Your task to perform on an android device: open chrome privacy settings Image 0: 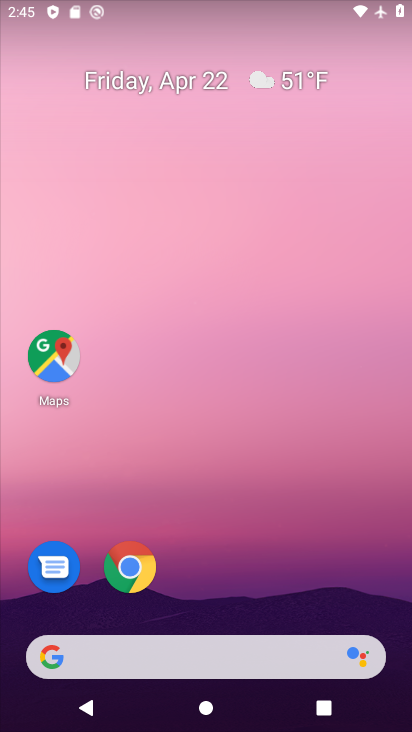
Step 0: drag from (273, 625) to (215, 209)
Your task to perform on an android device: open chrome privacy settings Image 1: 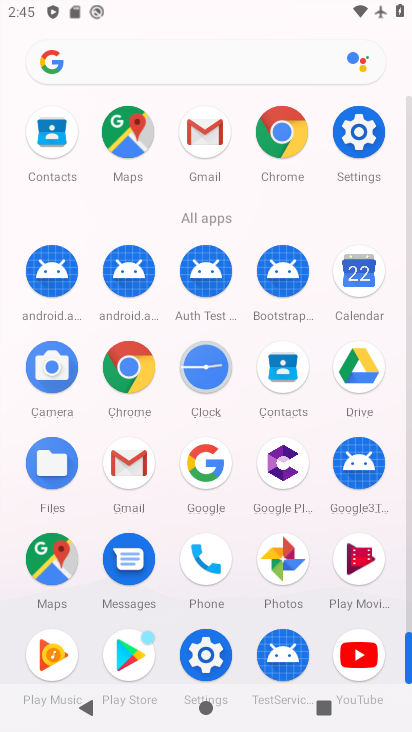
Step 1: click (278, 144)
Your task to perform on an android device: open chrome privacy settings Image 2: 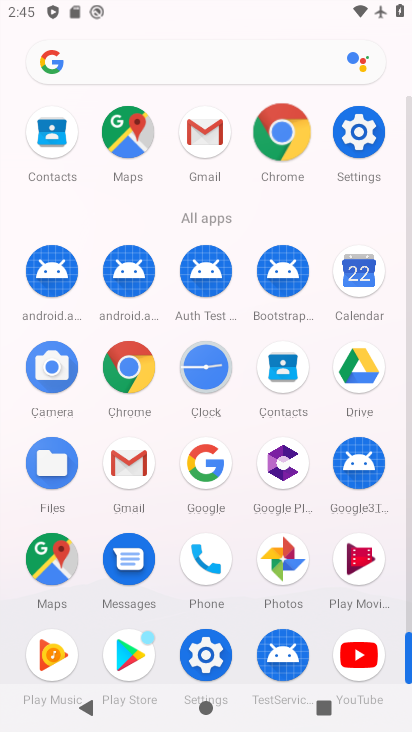
Step 2: click (278, 144)
Your task to perform on an android device: open chrome privacy settings Image 3: 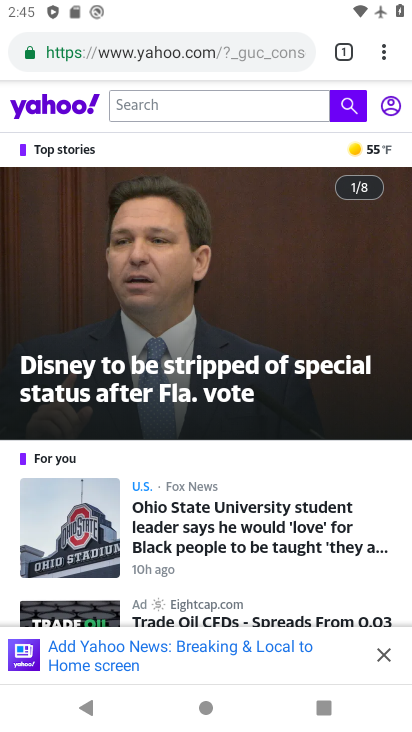
Step 3: drag from (384, 51) to (215, 582)
Your task to perform on an android device: open chrome privacy settings Image 4: 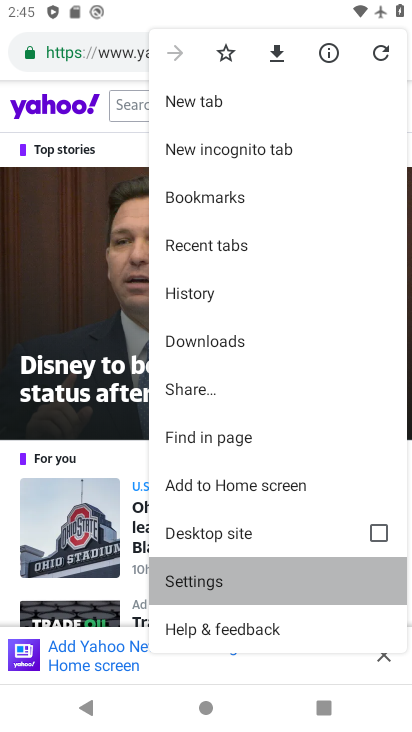
Step 4: click (215, 582)
Your task to perform on an android device: open chrome privacy settings Image 5: 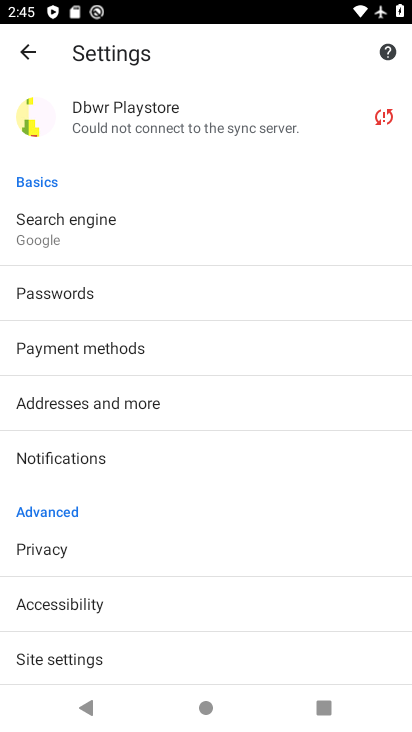
Step 5: drag from (68, 329) to (56, 190)
Your task to perform on an android device: open chrome privacy settings Image 6: 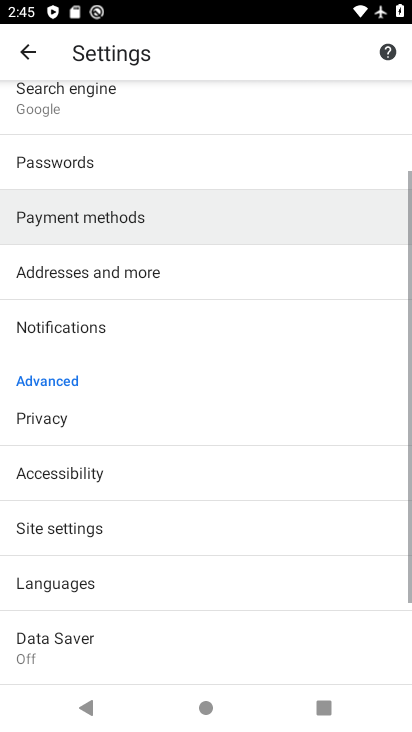
Step 6: drag from (132, 532) to (136, 215)
Your task to perform on an android device: open chrome privacy settings Image 7: 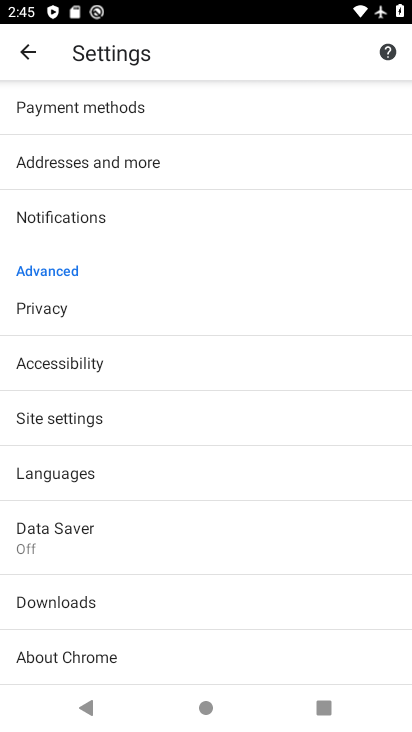
Step 7: click (43, 412)
Your task to perform on an android device: open chrome privacy settings Image 8: 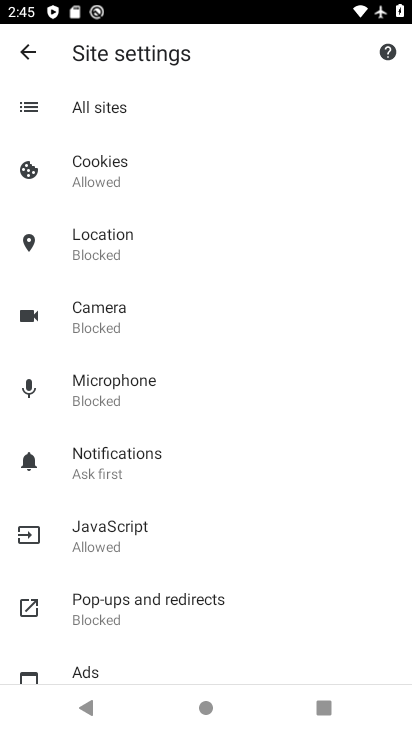
Step 8: click (33, 47)
Your task to perform on an android device: open chrome privacy settings Image 9: 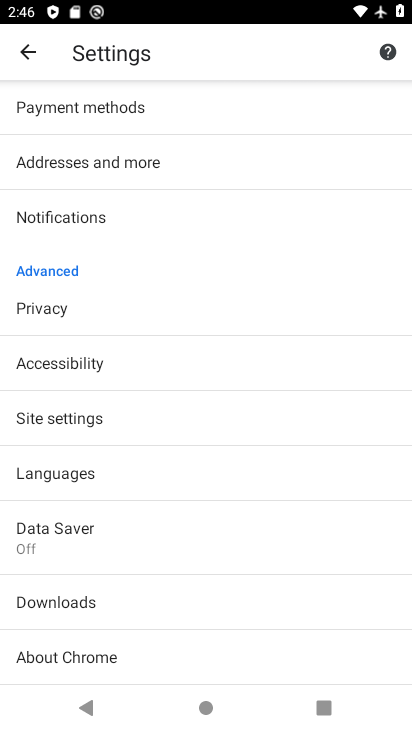
Step 9: click (99, 538)
Your task to perform on an android device: open chrome privacy settings Image 10: 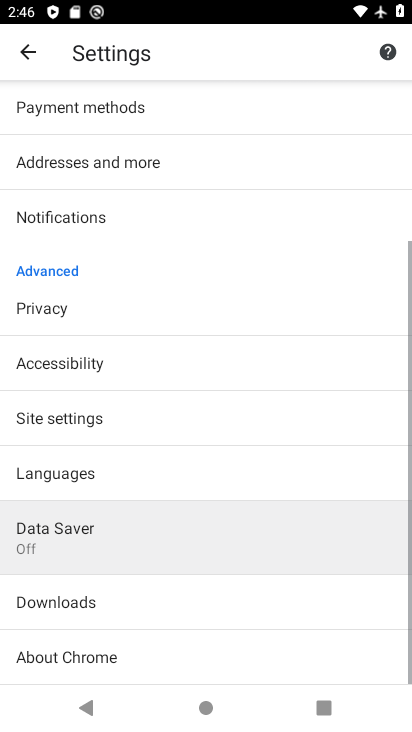
Step 10: click (30, 309)
Your task to perform on an android device: open chrome privacy settings Image 11: 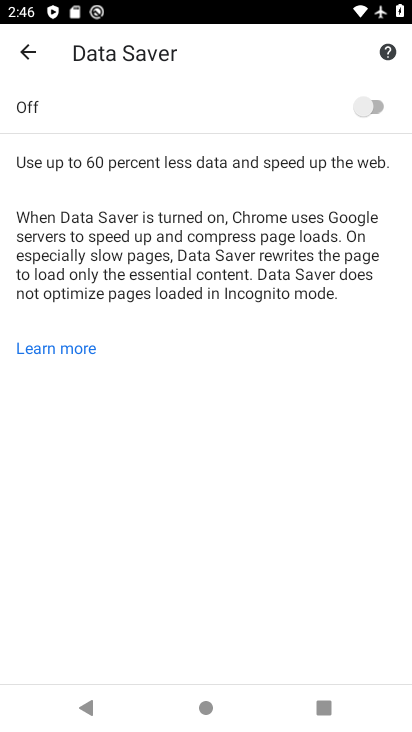
Step 11: click (15, 47)
Your task to perform on an android device: open chrome privacy settings Image 12: 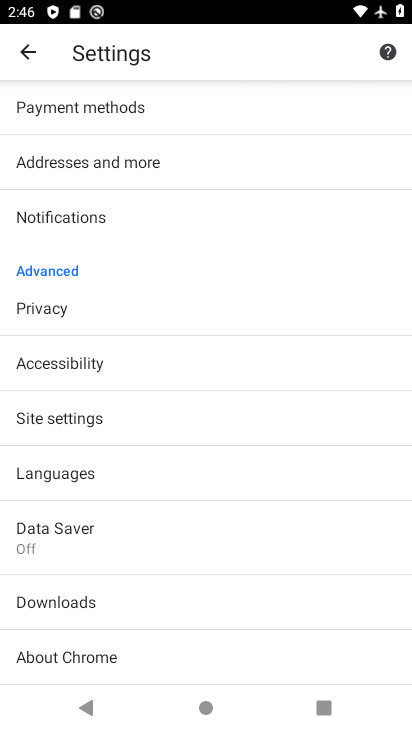
Step 12: click (44, 302)
Your task to perform on an android device: open chrome privacy settings Image 13: 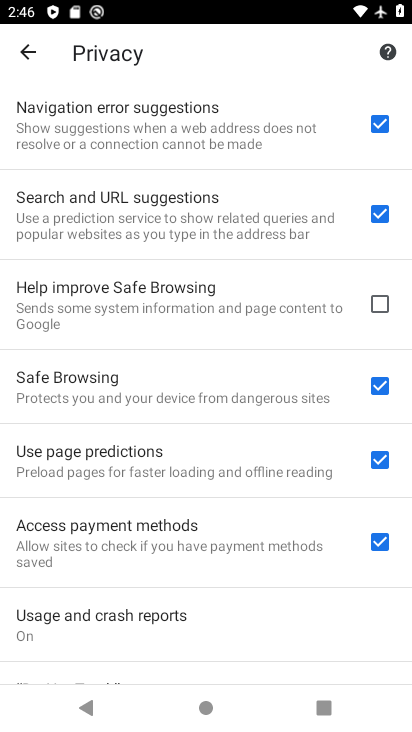
Step 13: task complete